Your task to perform on an android device: turn on the 24-hour format for clock Image 0: 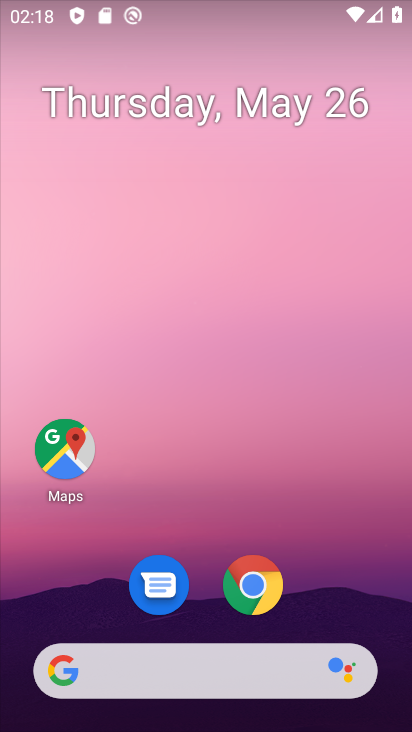
Step 0: drag from (216, 495) to (241, 36)
Your task to perform on an android device: turn on the 24-hour format for clock Image 1: 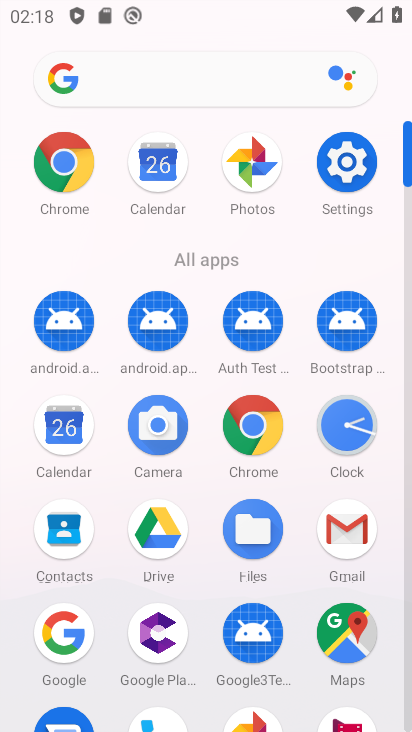
Step 1: click (352, 423)
Your task to perform on an android device: turn on the 24-hour format for clock Image 2: 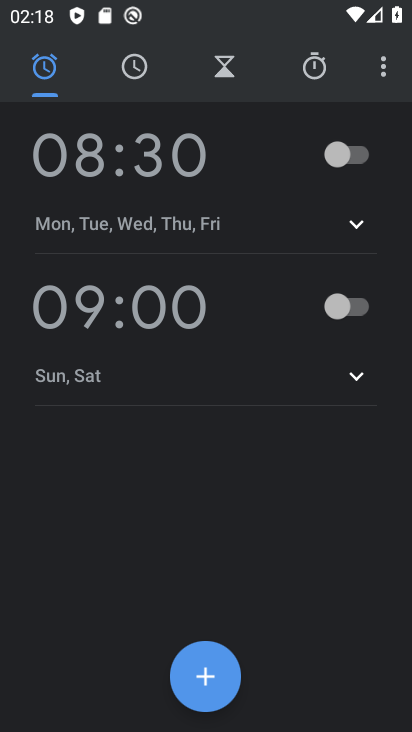
Step 2: click (375, 69)
Your task to perform on an android device: turn on the 24-hour format for clock Image 3: 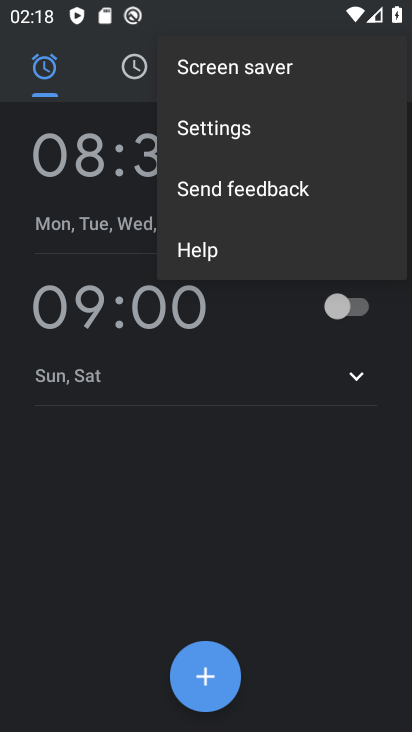
Step 3: click (296, 124)
Your task to perform on an android device: turn on the 24-hour format for clock Image 4: 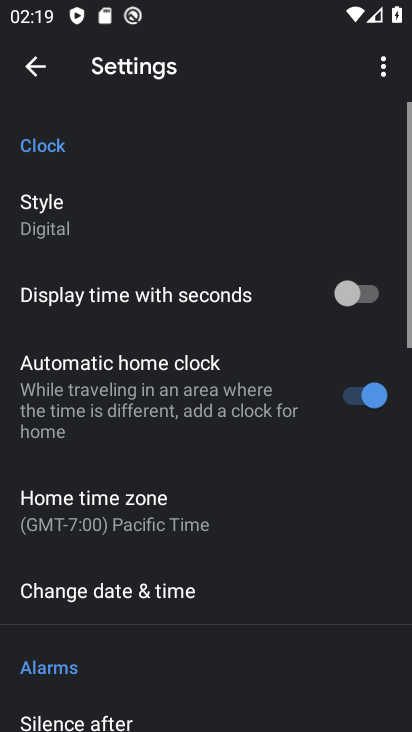
Step 4: click (239, 599)
Your task to perform on an android device: turn on the 24-hour format for clock Image 5: 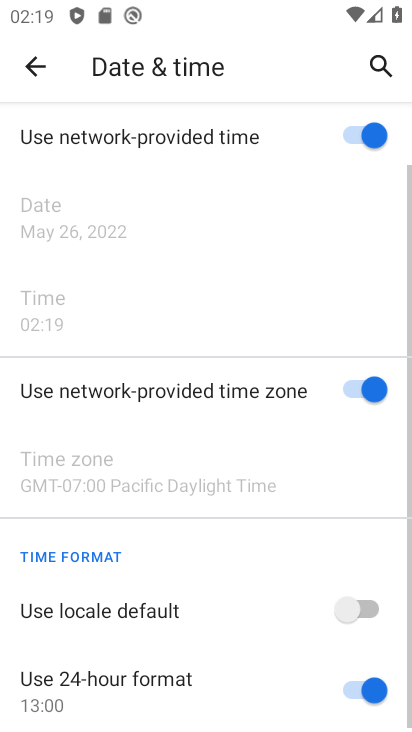
Step 5: task complete